Your task to perform on an android device: install app "Gmail" Image 0: 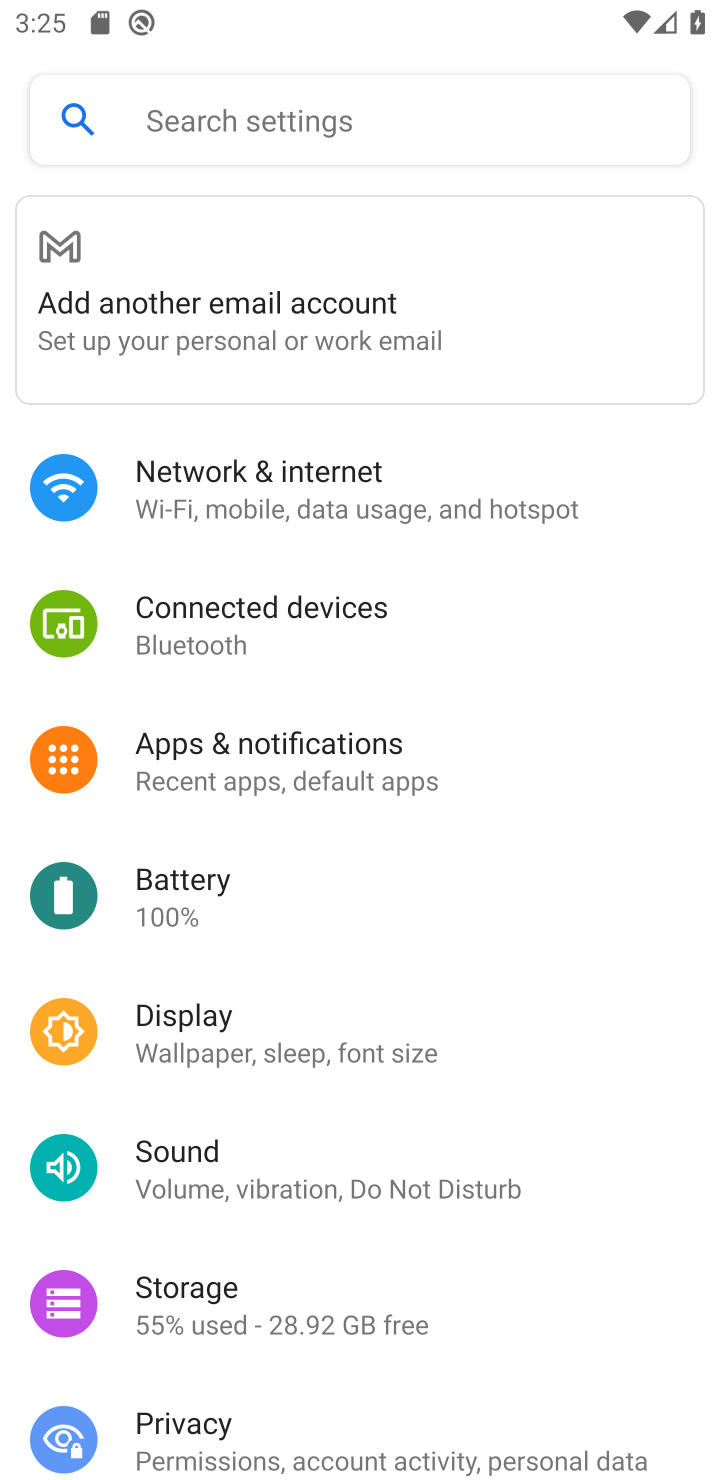
Step 0: press home button
Your task to perform on an android device: install app "Gmail" Image 1: 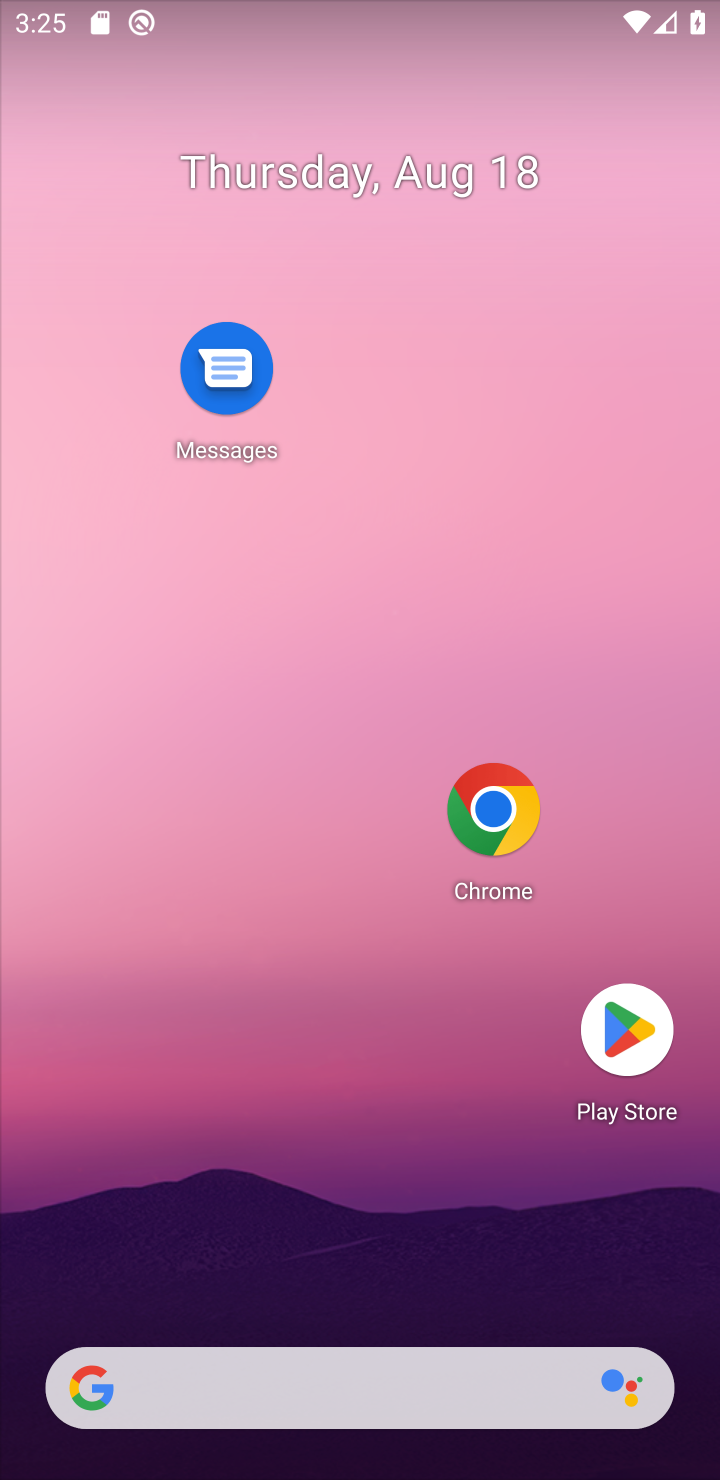
Step 1: click (629, 1033)
Your task to perform on an android device: install app "Gmail" Image 2: 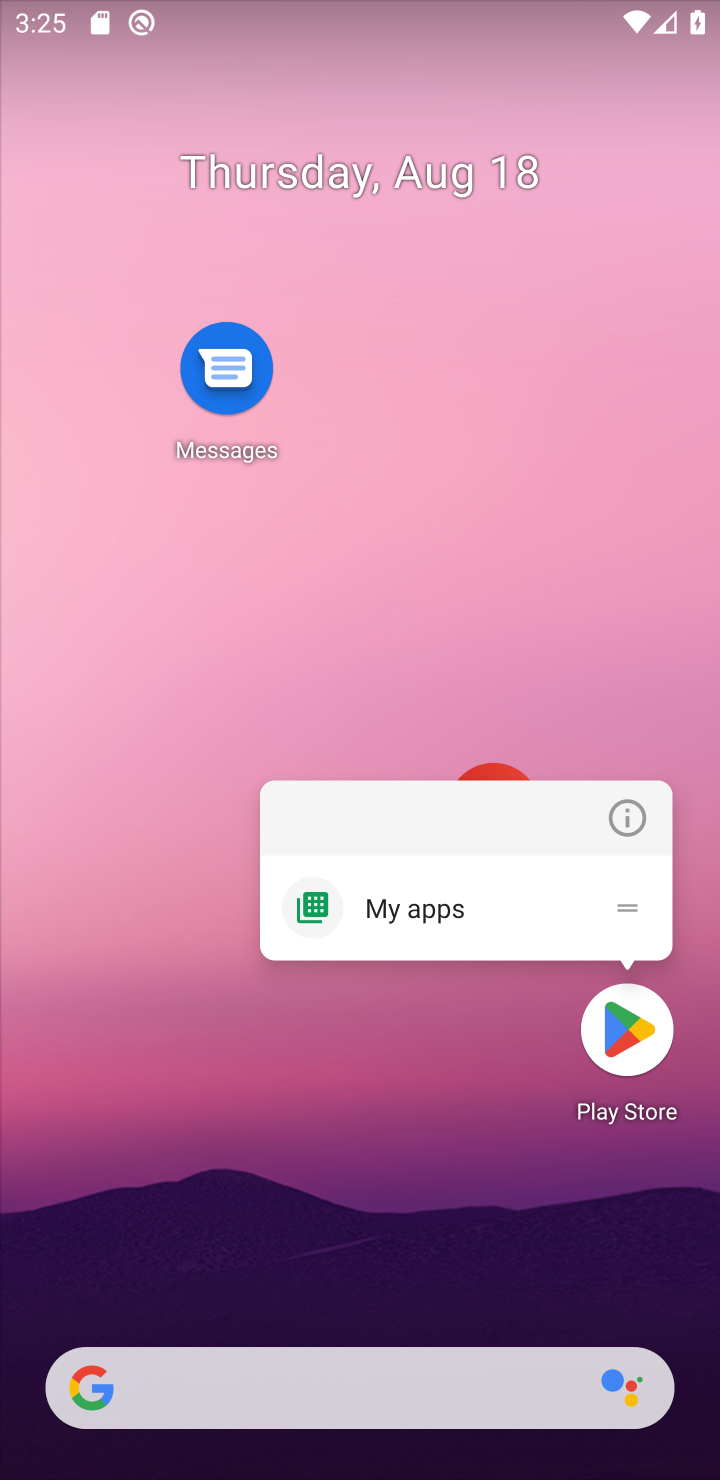
Step 2: click (629, 1033)
Your task to perform on an android device: install app "Gmail" Image 3: 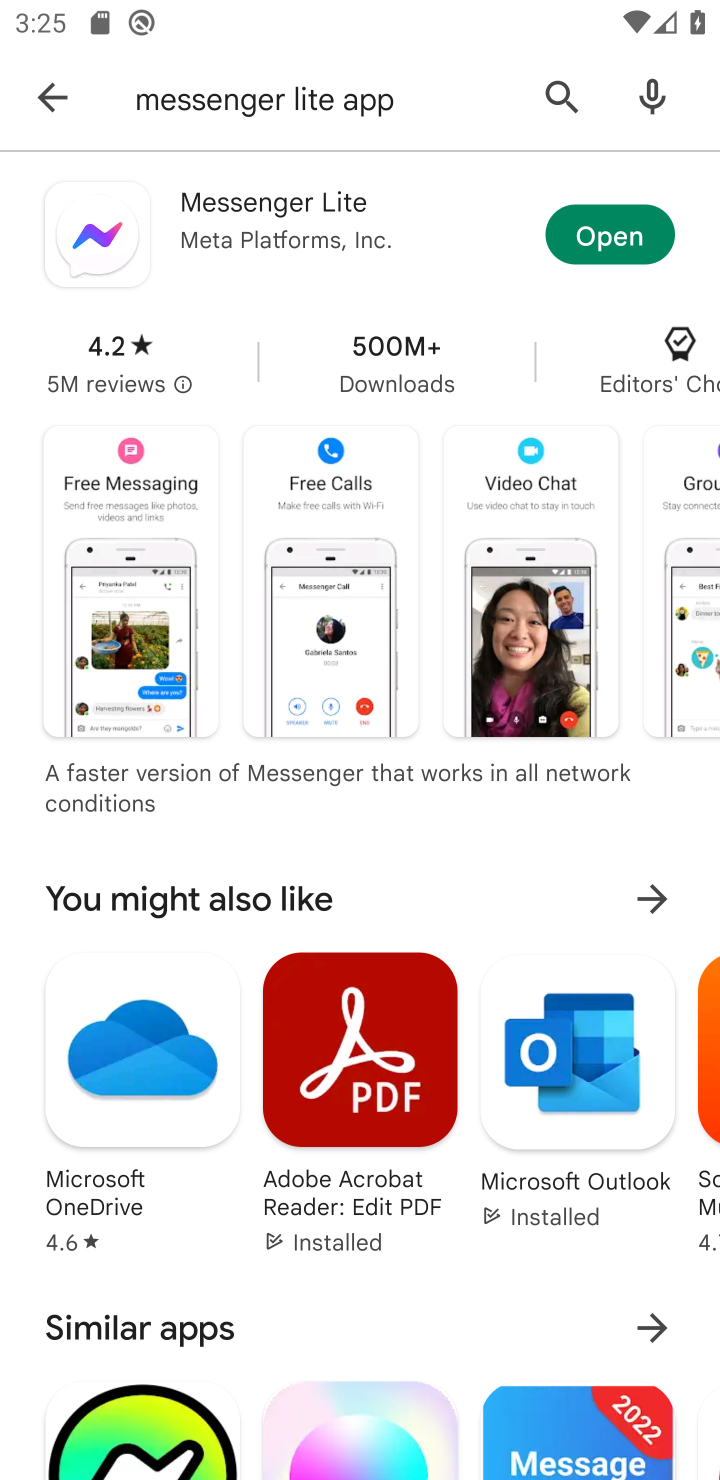
Step 3: click (547, 90)
Your task to perform on an android device: install app "Gmail" Image 4: 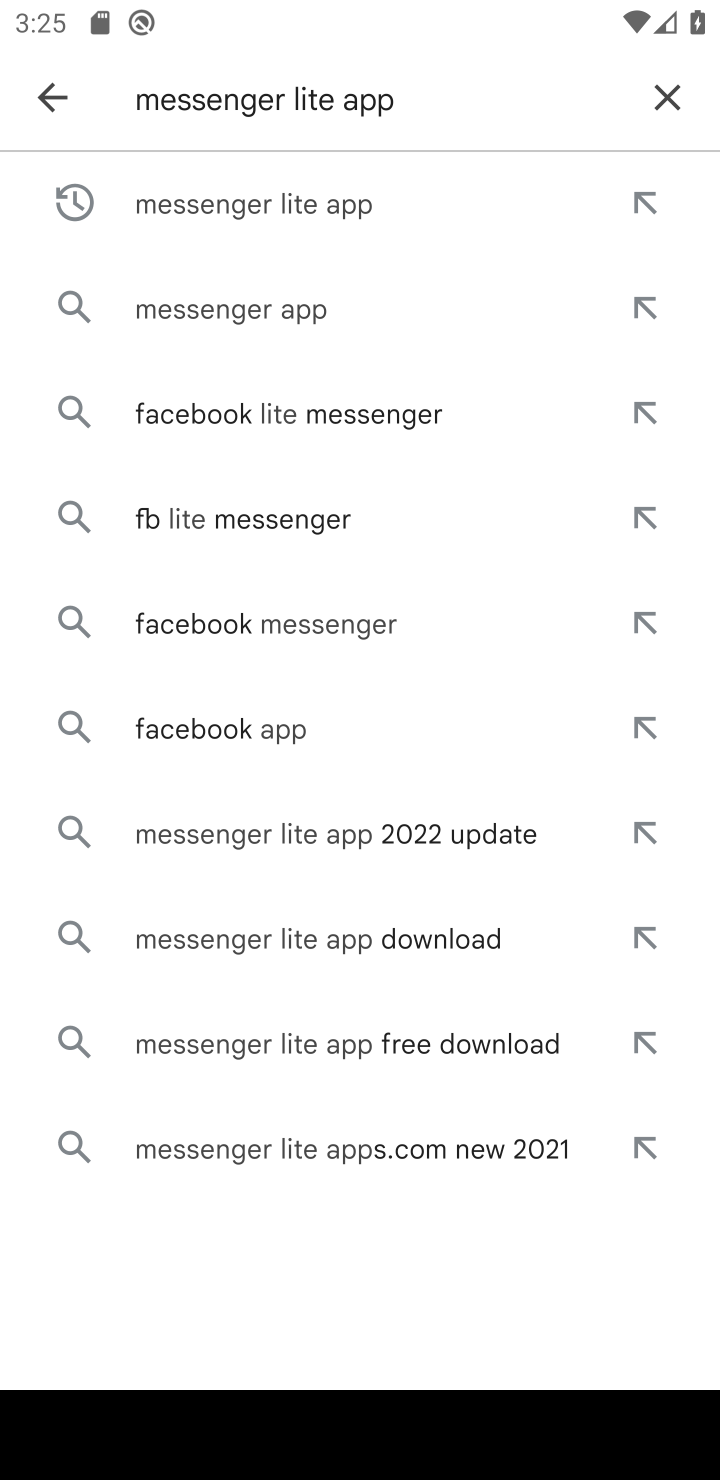
Step 4: click (669, 85)
Your task to perform on an android device: install app "Gmail" Image 5: 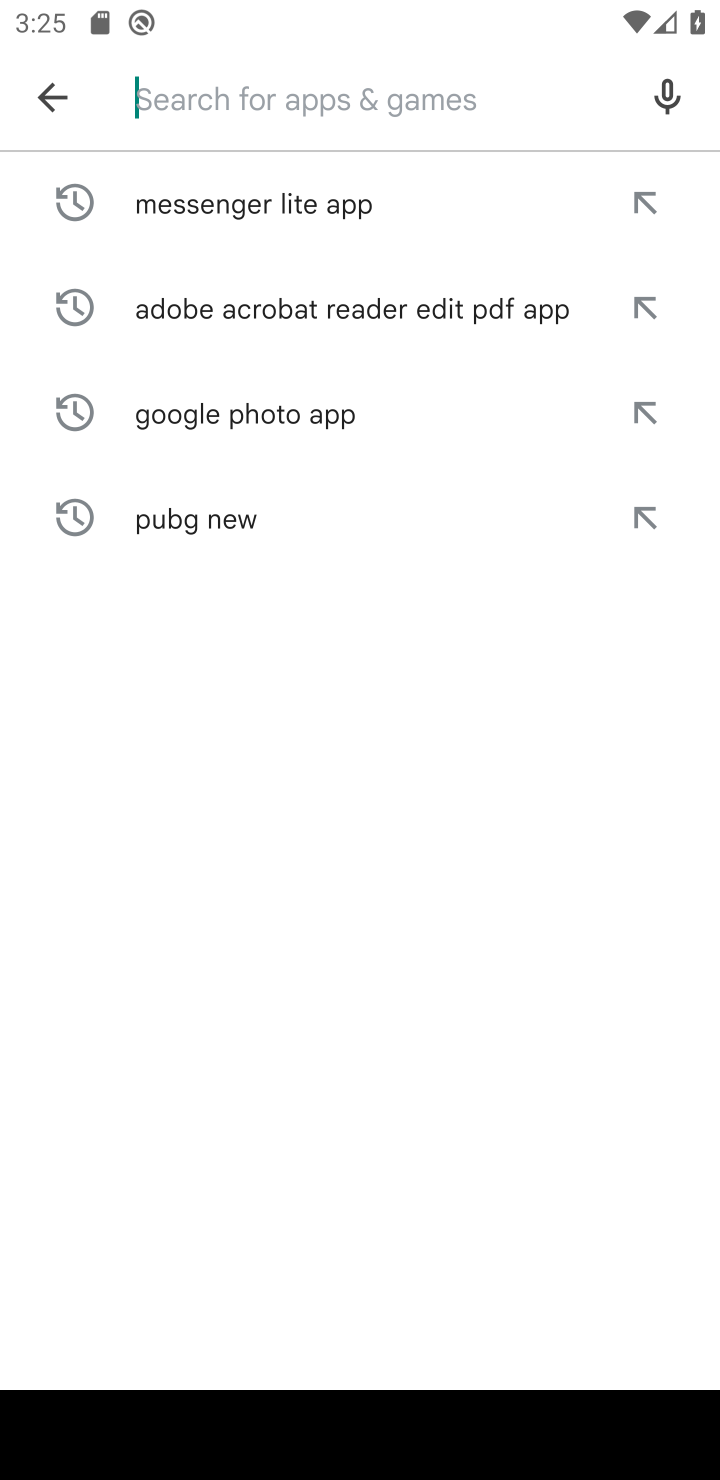
Step 5: click (498, 98)
Your task to perform on an android device: install app "Gmail" Image 6: 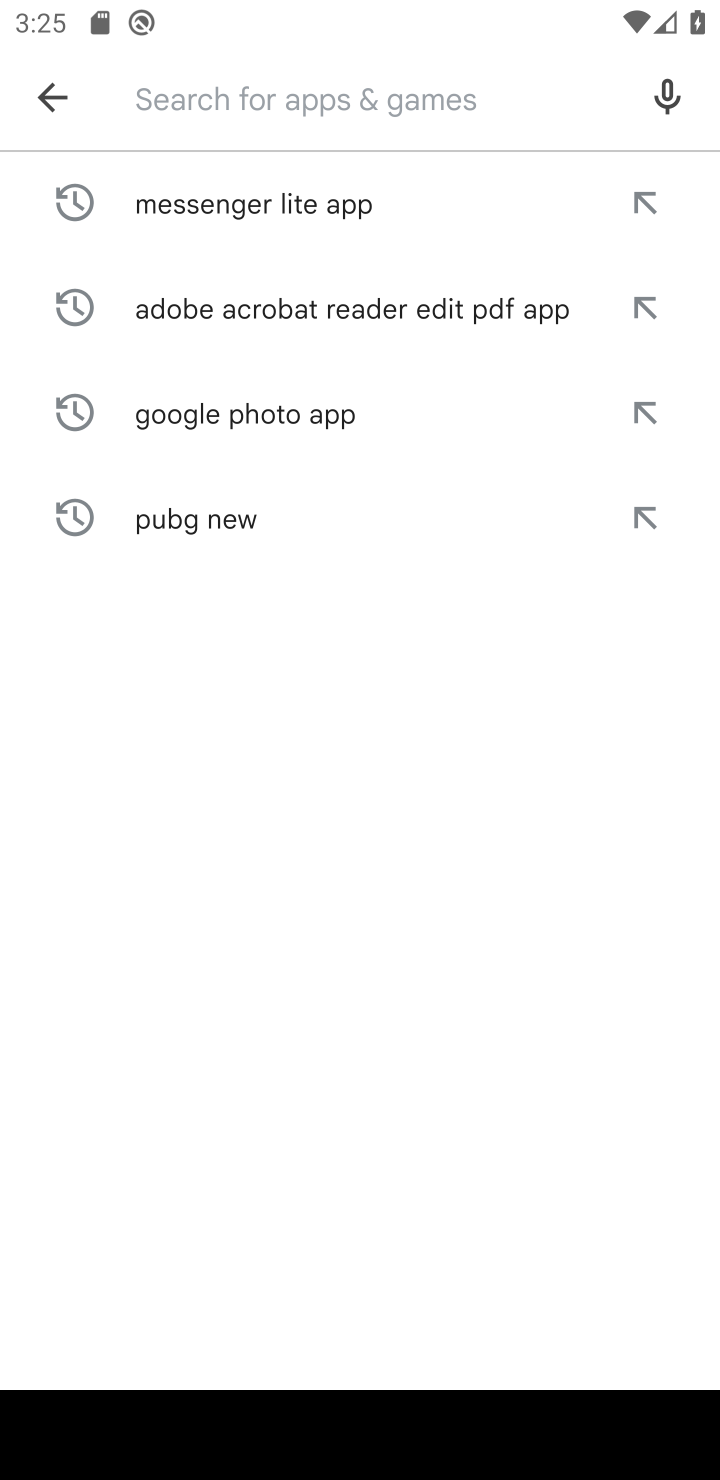
Step 6: click (193, 78)
Your task to perform on an android device: install app "Gmail" Image 7: 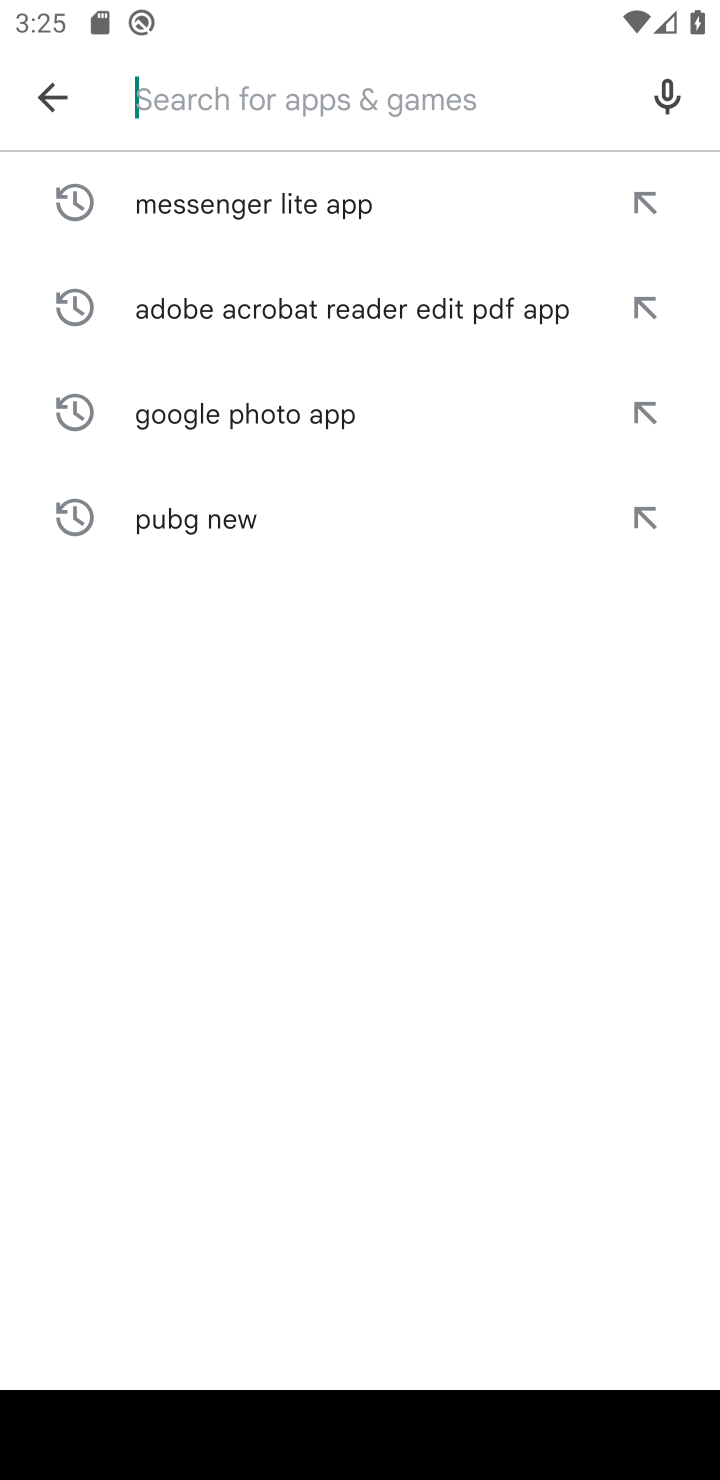
Step 7: type "gmail "
Your task to perform on an android device: install app "Gmail" Image 8: 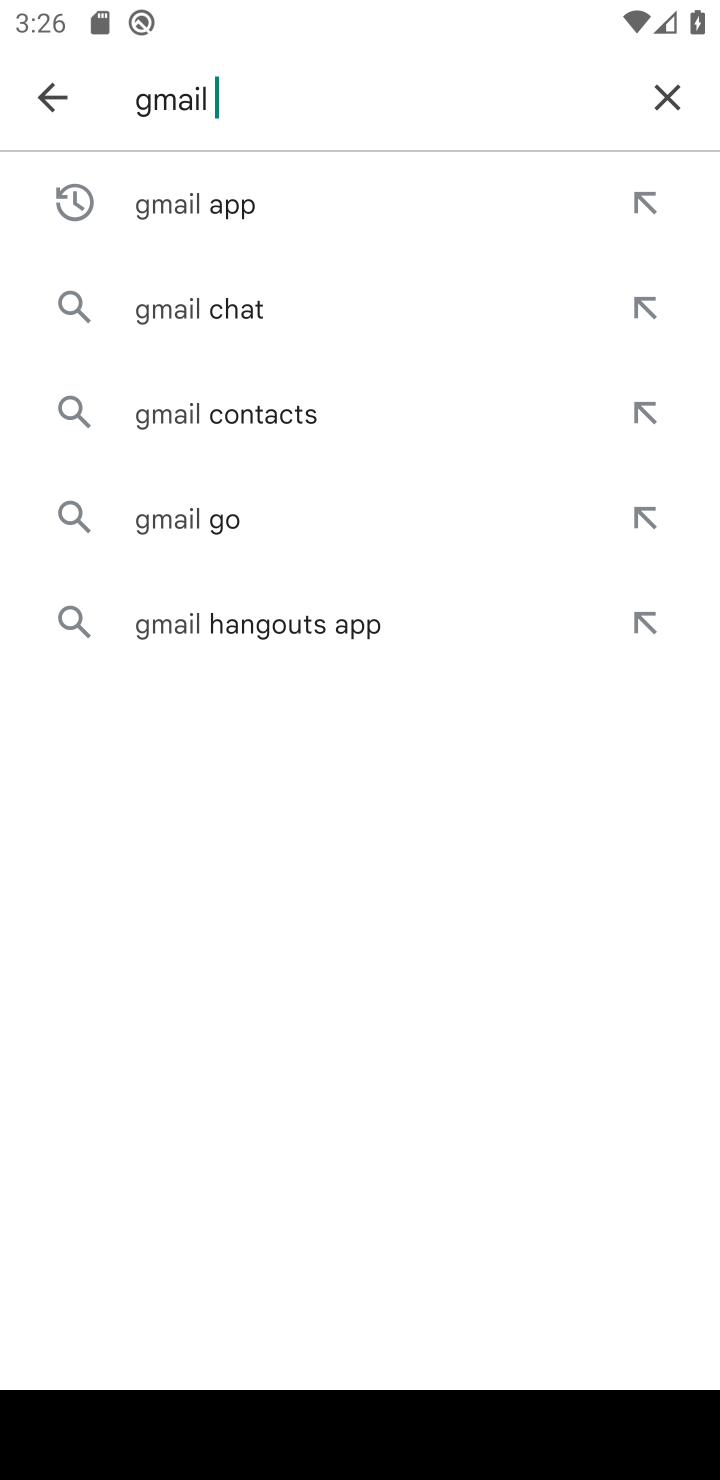
Step 8: click (284, 190)
Your task to perform on an android device: install app "Gmail" Image 9: 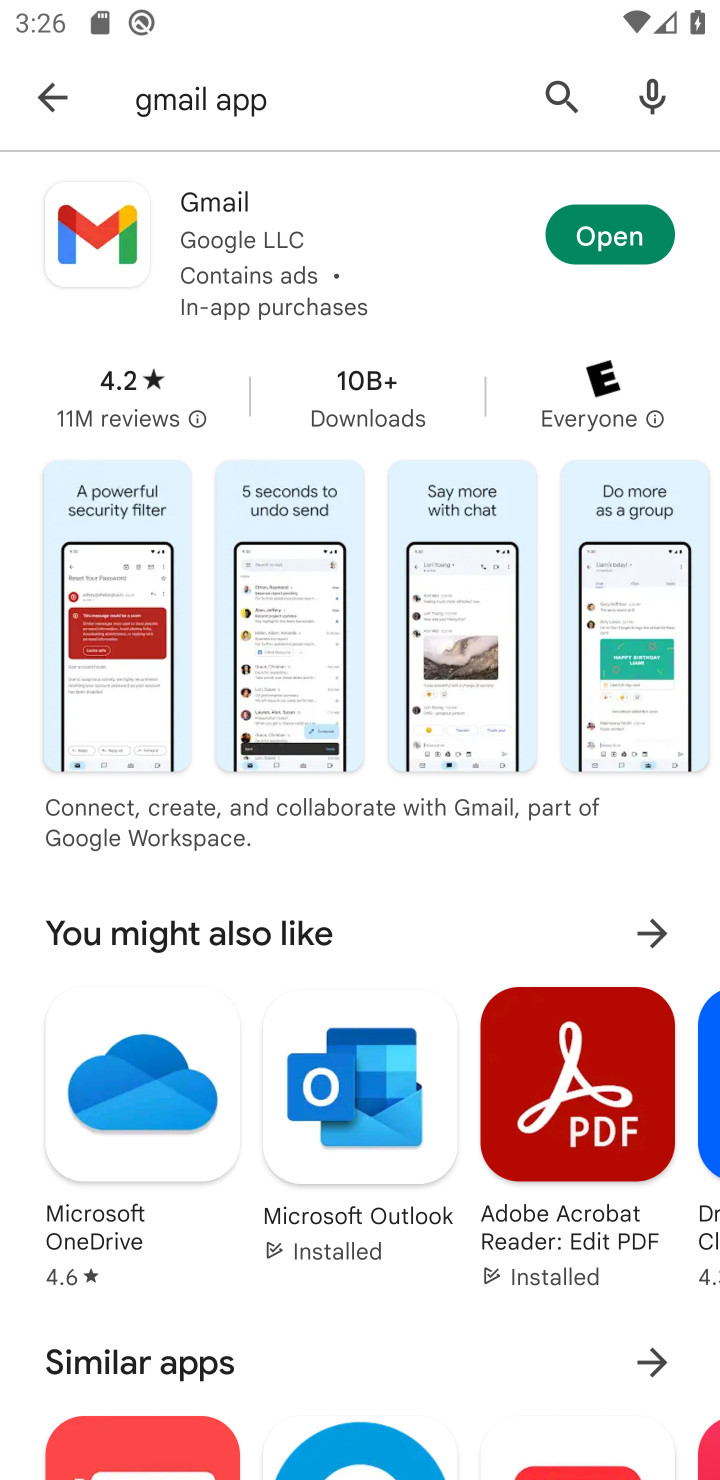
Step 9: click (603, 214)
Your task to perform on an android device: install app "Gmail" Image 10: 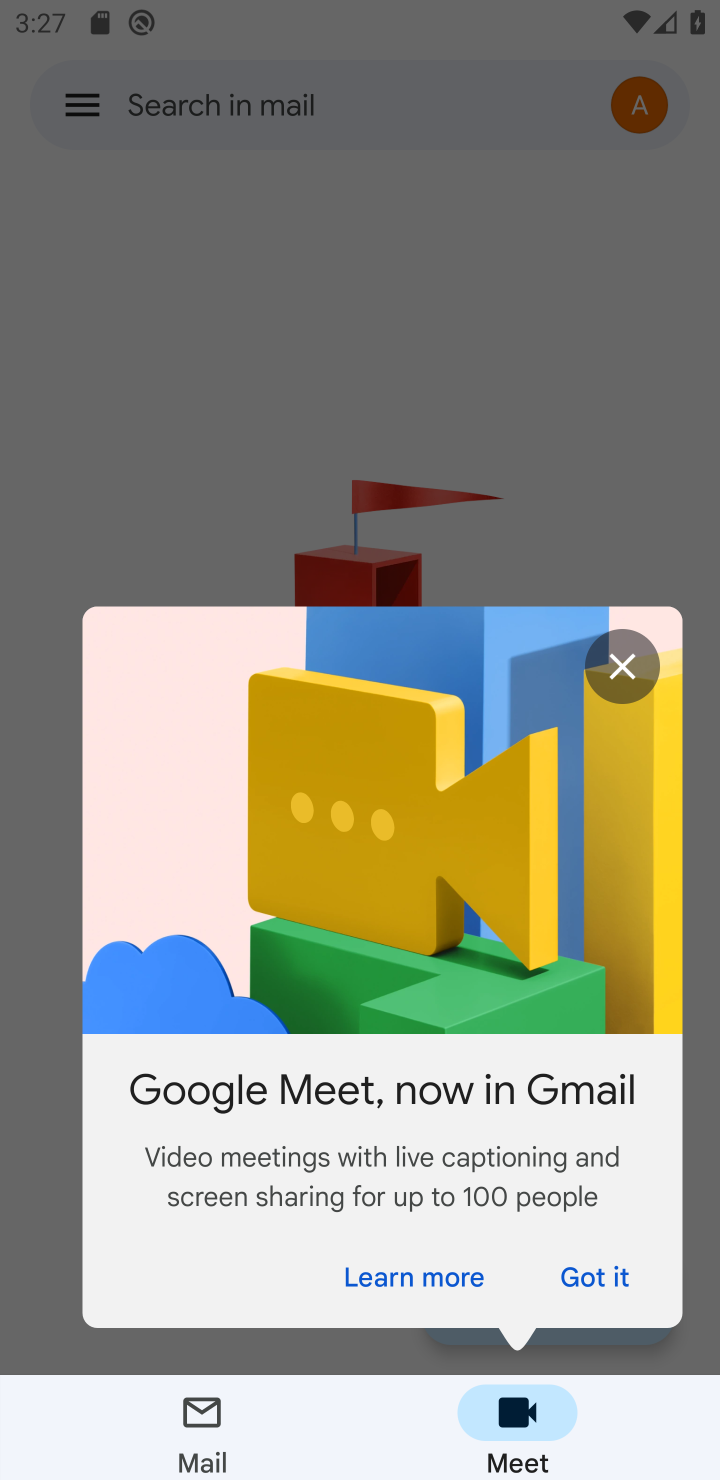
Step 10: task complete